Your task to perform on an android device: Turn off the flashlight Image 0: 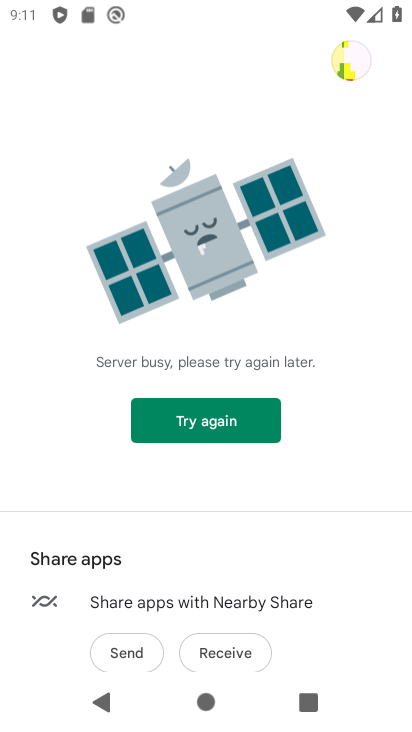
Step 0: press home button
Your task to perform on an android device: Turn off the flashlight Image 1: 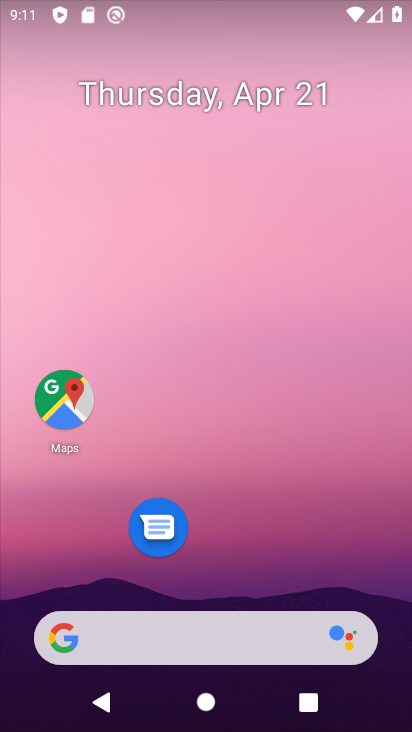
Step 1: drag from (208, 583) to (229, 101)
Your task to perform on an android device: Turn off the flashlight Image 2: 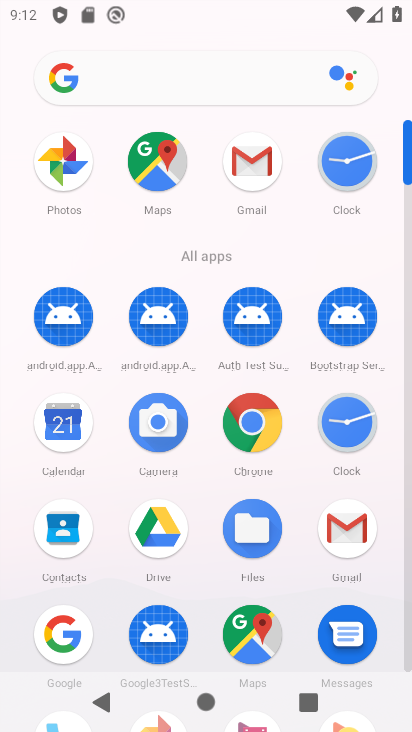
Step 2: drag from (104, 497) to (106, 122)
Your task to perform on an android device: Turn off the flashlight Image 3: 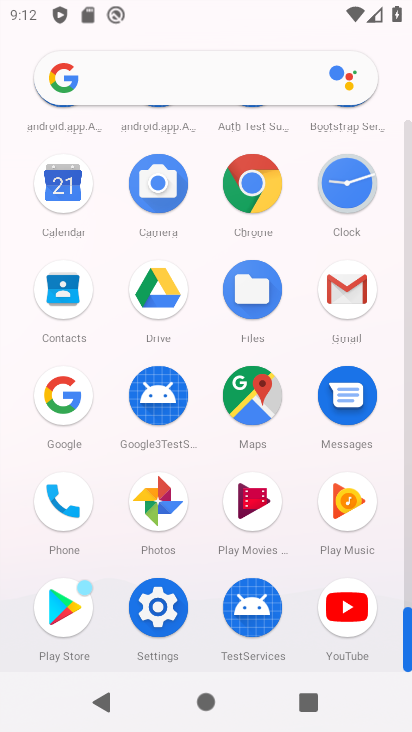
Step 3: drag from (107, 493) to (119, 178)
Your task to perform on an android device: Turn off the flashlight Image 4: 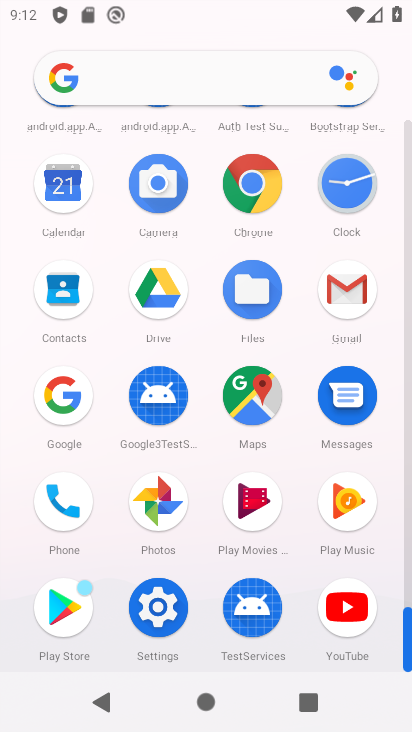
Step 4: drag from (117, 526) to (110, 137)
Your task to perform on an android device: Turn off the flashlight Image 5: 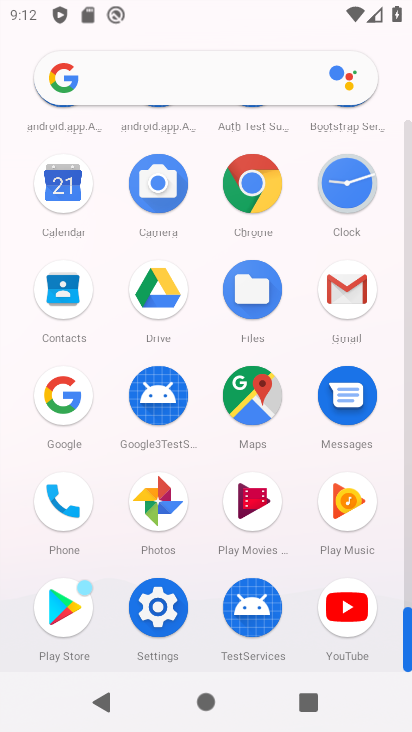
Step 5: click (167, 603)
Your task to perform on an android device: Turn off the flashlight Image 6: 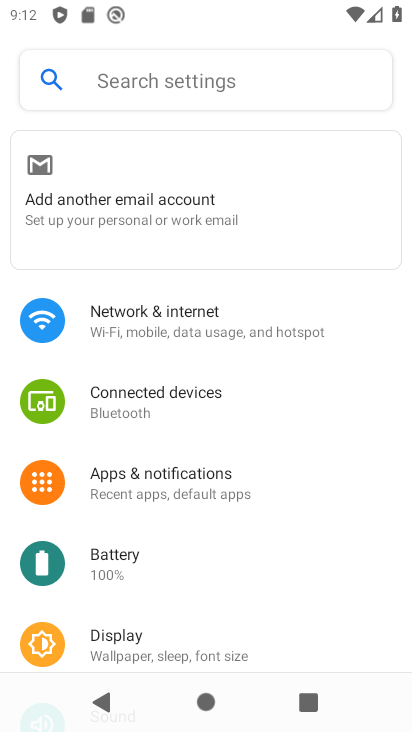
Step 6: task complete